Your task to perform on an android device: all mails in gmail Image 0: 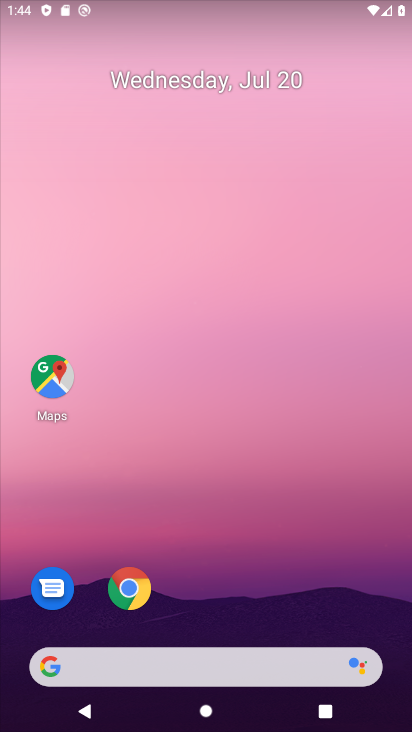
Step 0: drag from (285, 532) to (296, 115)
Your task to perform on an android device: all mails in gmail Image 1: 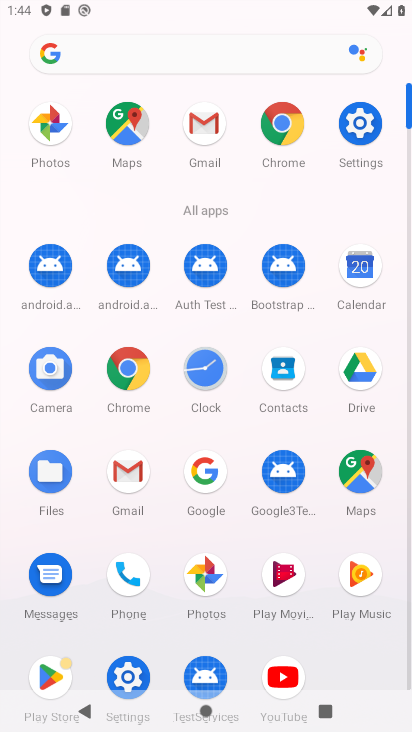
Step 1: click (212, 120)
Your task to perform on an android device: all mails in gmail Image 2: 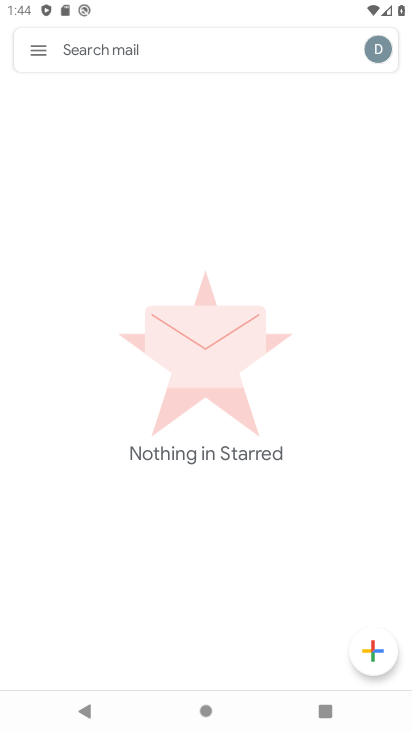
Step 2: click (28, 45)
Your task to perform on an android device: all mails in gmail Image 3: 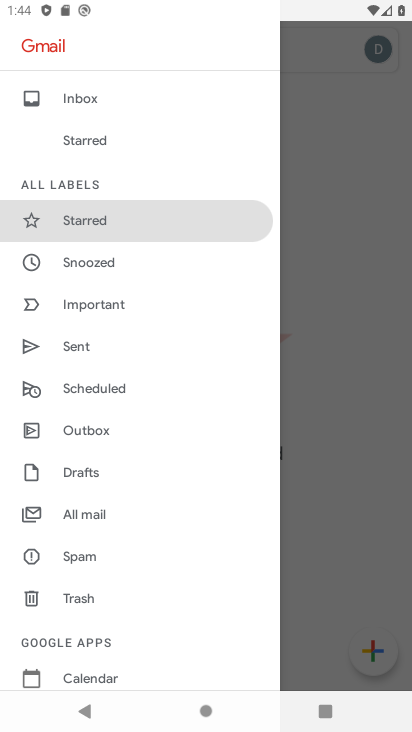
Step 3: click (101, 521)
Your task to perform on an android device: all mails in gmail Image 4: 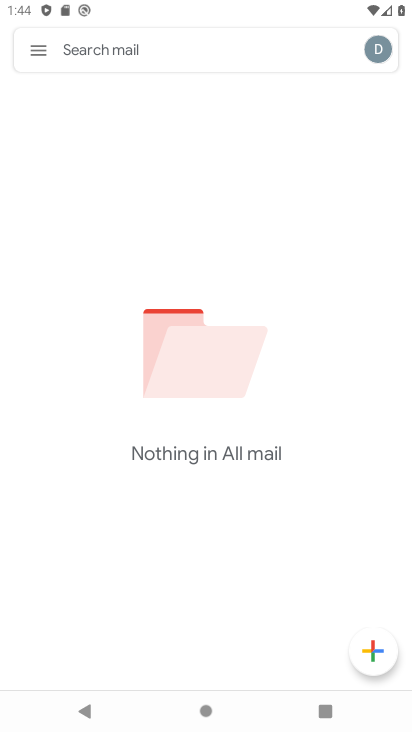
Step 4: task complete